Your task to perform on an android device: Search for "alienware aurora" on costco, select the first entry, add it to the cart, then select checkout. Image 0: 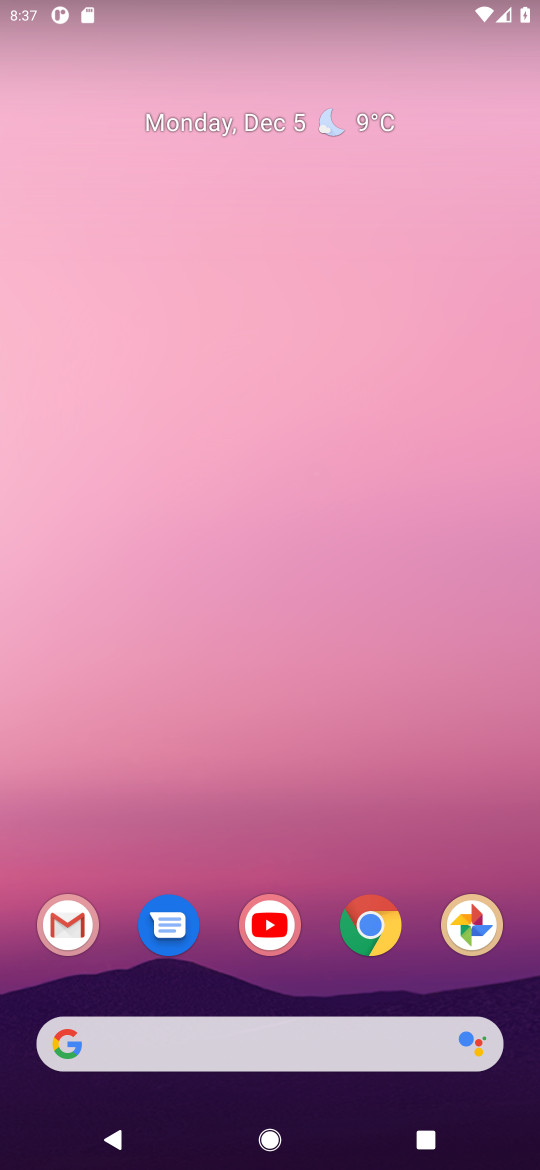
Step 0: click (370, 933)
Your task to perform on an android device: Search for "alienware aurora" on costco, select the first entry, add it to the cart, then select checkout. Image 1: 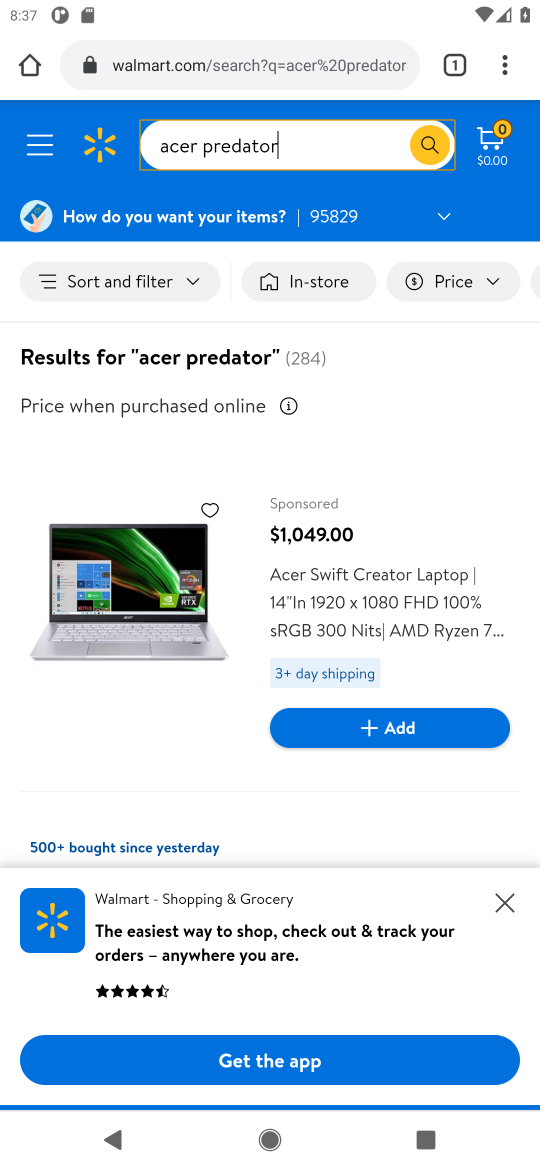
Step 1: click (216, 78)
Your task to perform on an android device: Search for "alienware aurora" on costco, select the first entry, add it to the cart, then select checkout. Image 2: 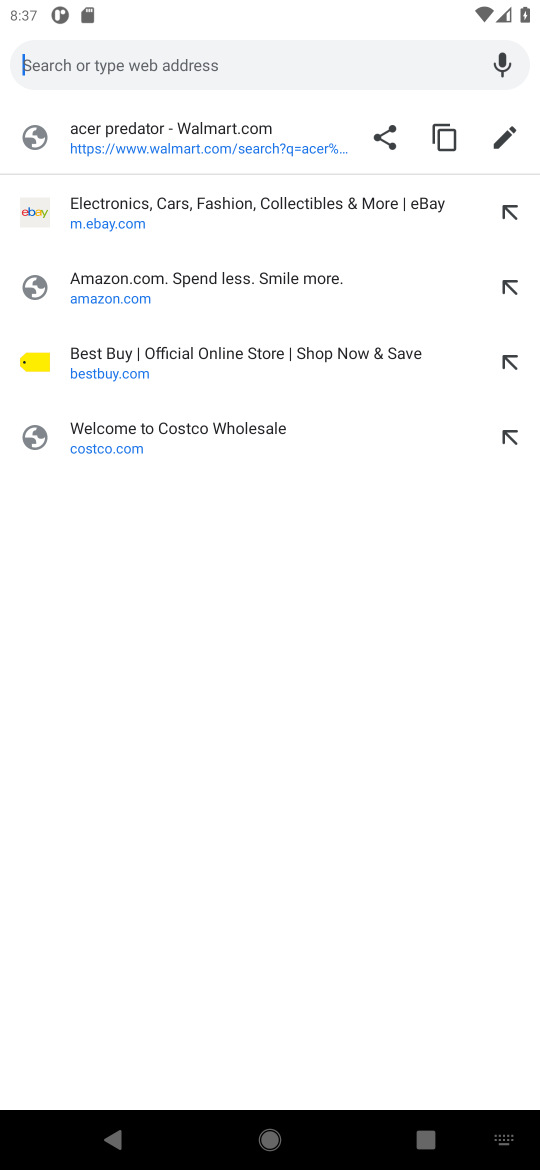
Step 2: click (89, 441)
Your task to perform on an android device: Search for "alienware aurora" on costco, select the first entry, add it to the cart, then select checkout. Image 3: 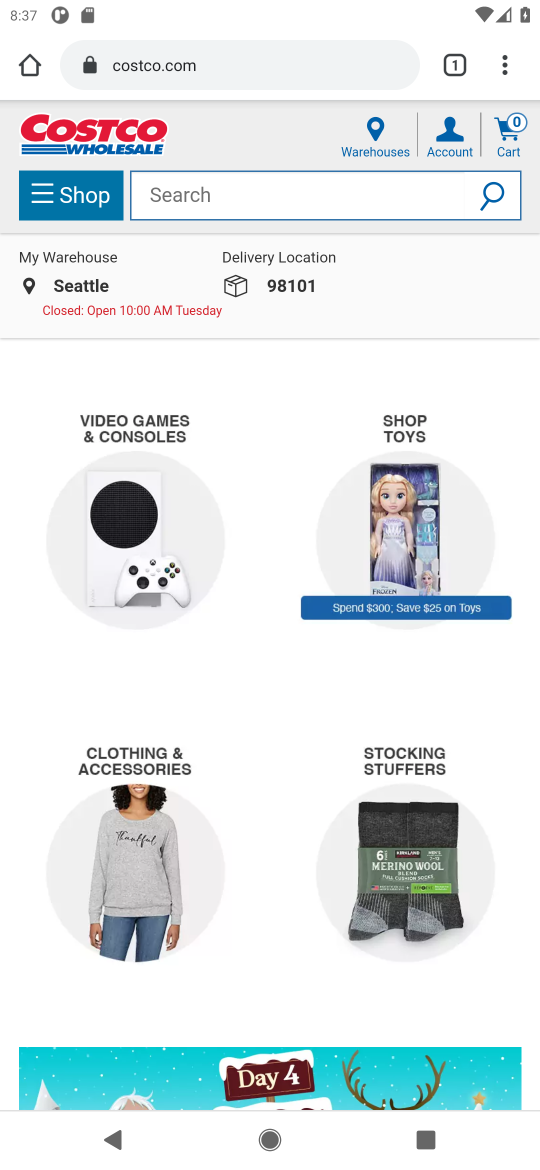
Step 3: click (192, 194)
Your task to perform on an android device: Search for "alienware aurora" on costco, select the first entry, add it to the cart, then select checkout. Image 4: 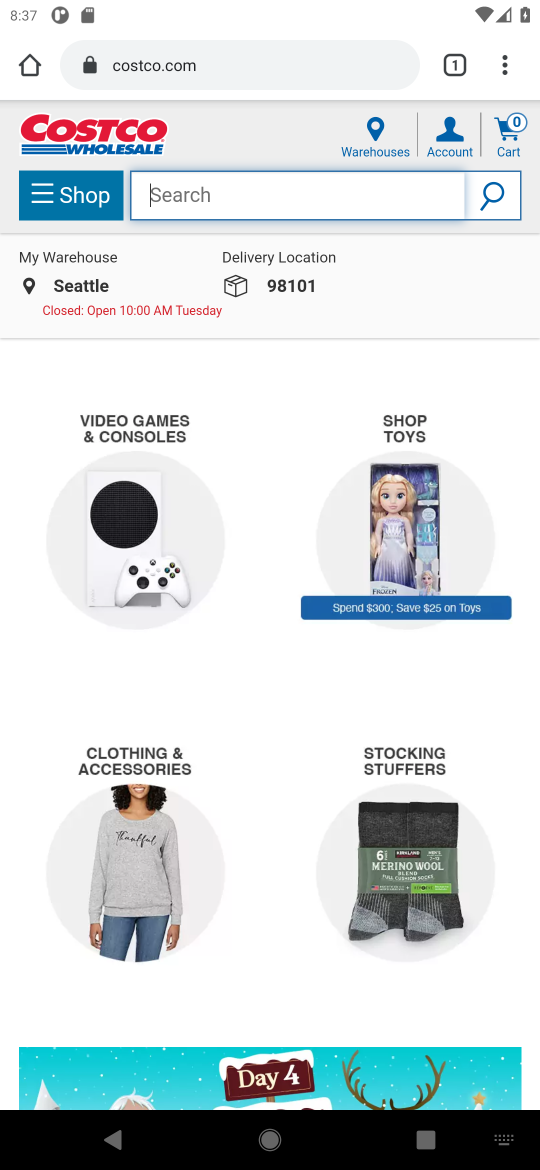
Step 4: type "alienware aurora"
Your task to perform on an android device: Search for "alienware aurora" on costco, select the first entry, add it to the cart, then select checkout. Image 5: 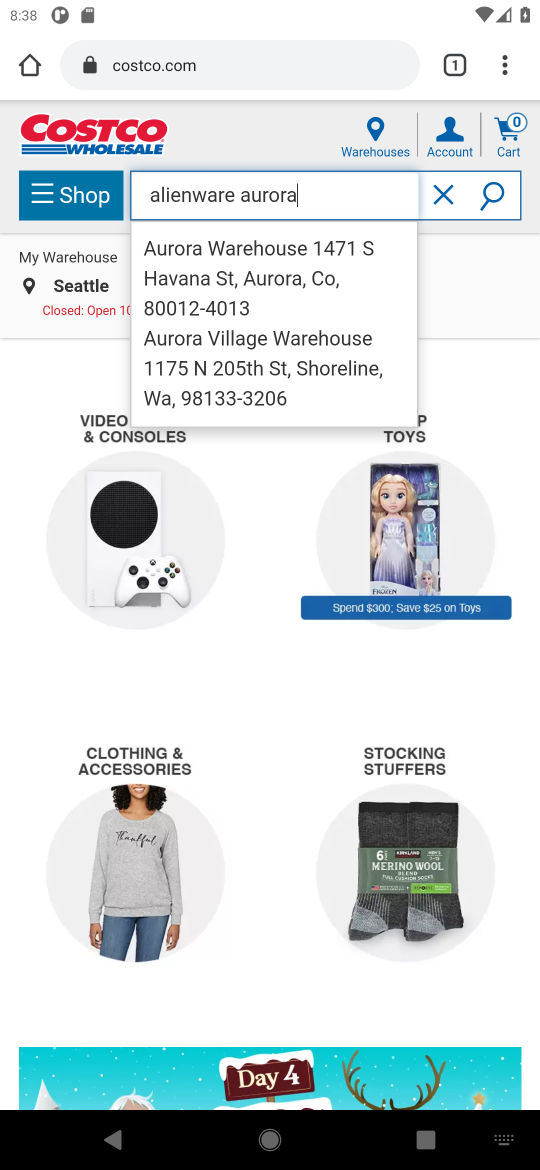
Step 5: click (499, 200)
Your task to perform on an android device: Search for "alienware aurora" on costco, select the first entry, add it to the cart, then select checkout. Image 6: 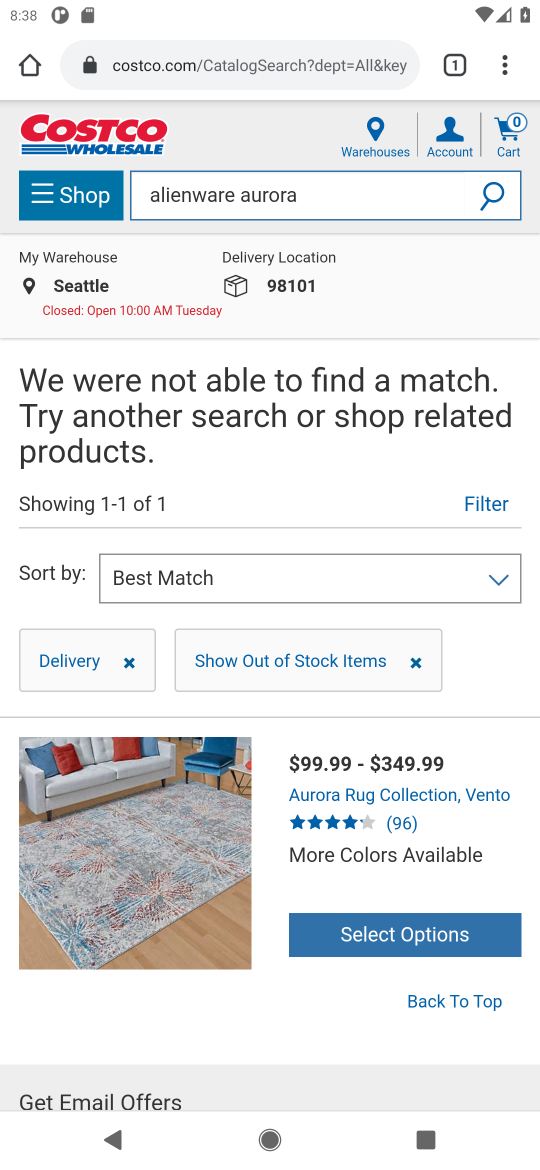
Step 6: task complete